Your task to perform on an android device: Clear the shopping cart on costco. Search for bose soundsport free on costco, select the first entry, add it to the cart, then select checkout. Image 0: 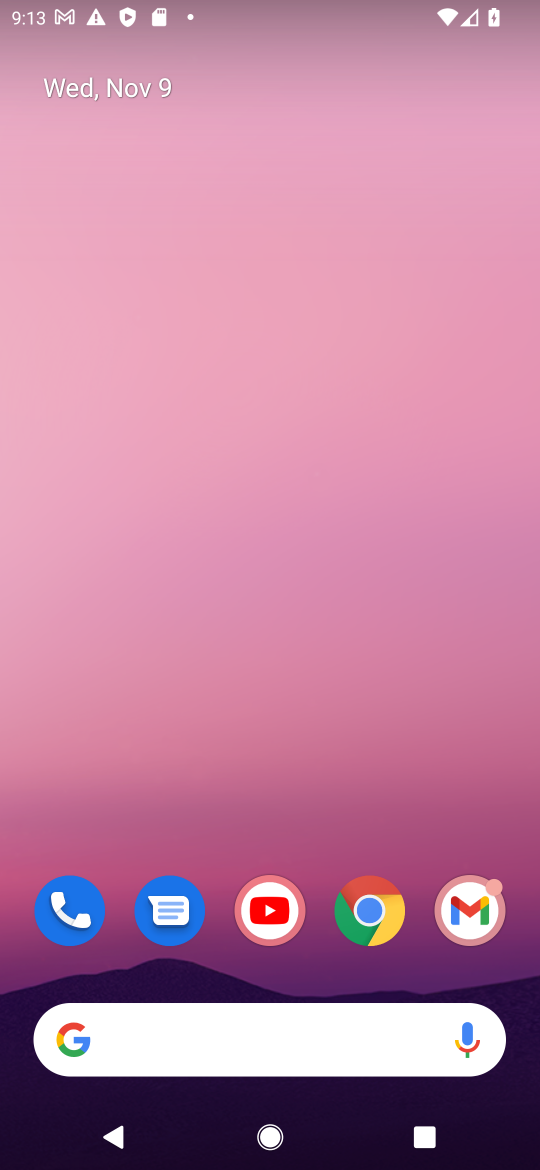
Step 0: click (371, 913)
Your task to perform on an android device: Clear the shopping cart on costco. Search for bose soundsport free on costco, select the first entry, add it to the cart, then select checkout. Image 1: 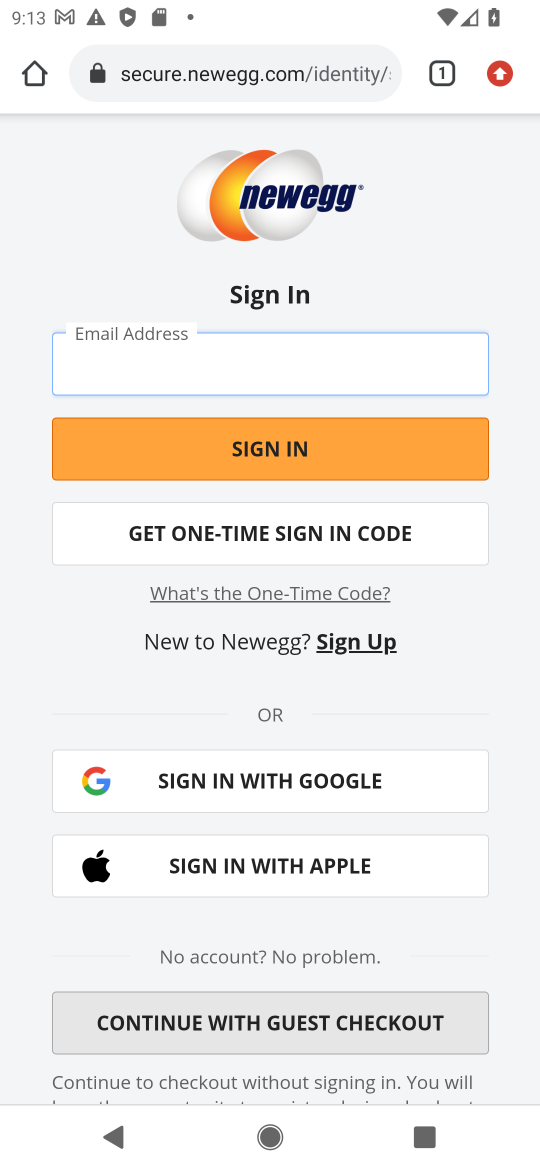
Step 1: click (254, 75)
Your task to perform on an android device: Clear the shopping cart on costco. Search for bose soundsport free on costco, select the first entry, add it to the cart, then select checkout. Image 2: 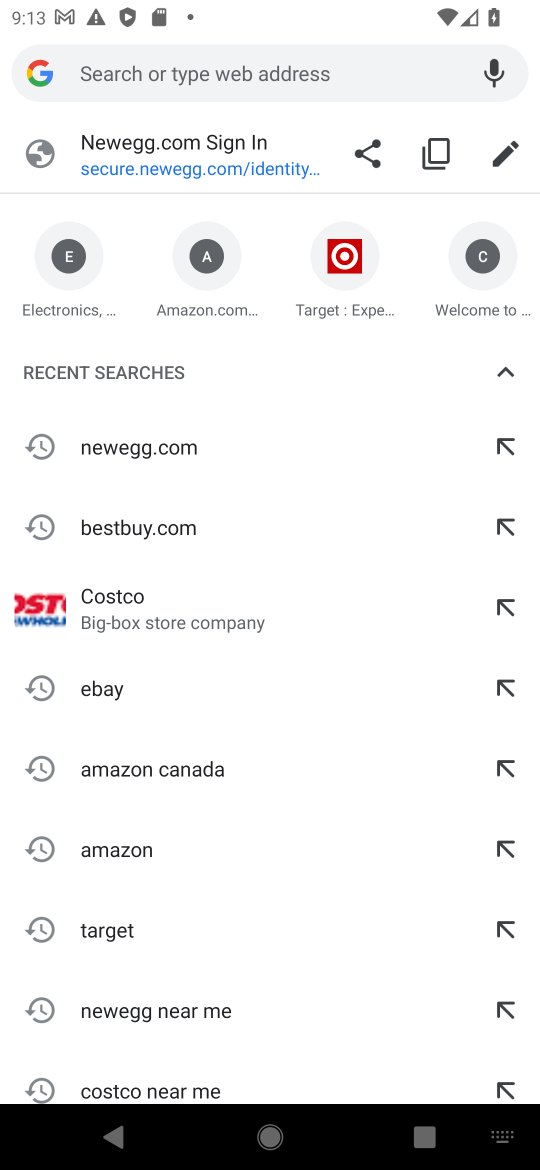
Step 2: type "costco.com"
Your task to perform on an android device: Clear the shopping cart on costco. Search for bose soundsport free on costco, select the first entry, add it to the cart, then select checkout. Image 3: 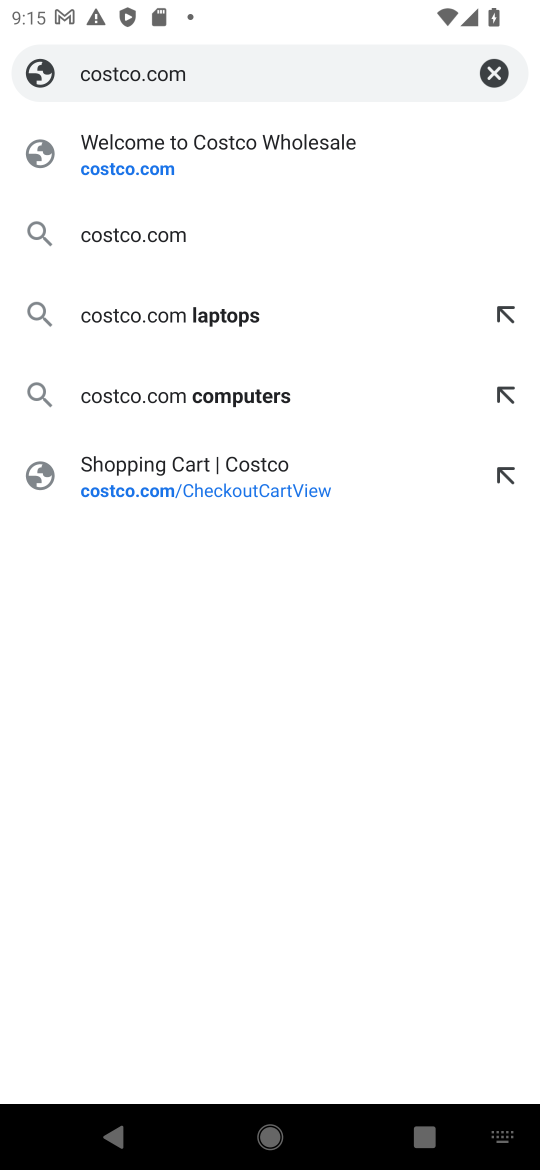
Step 3: click (126, 172)
Your task to perform on an android device: Clear the shopping cart on costco. Search for bose soundsport free on costco, select the first entry, add it to the cart, then select checkout. Image 4: 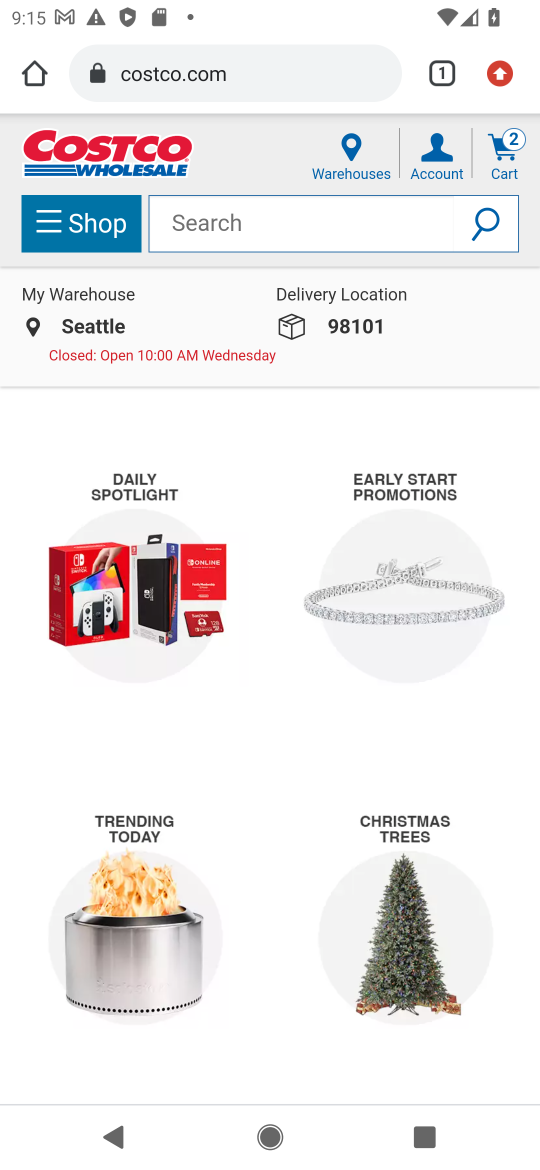
Step 4: click (502, 153)
Your task to perform on an android device: Clear the shopping cart on costco. Search for bose soundsport free on costco, select the first entry, add it to the cart, then select checkout. Image 5: 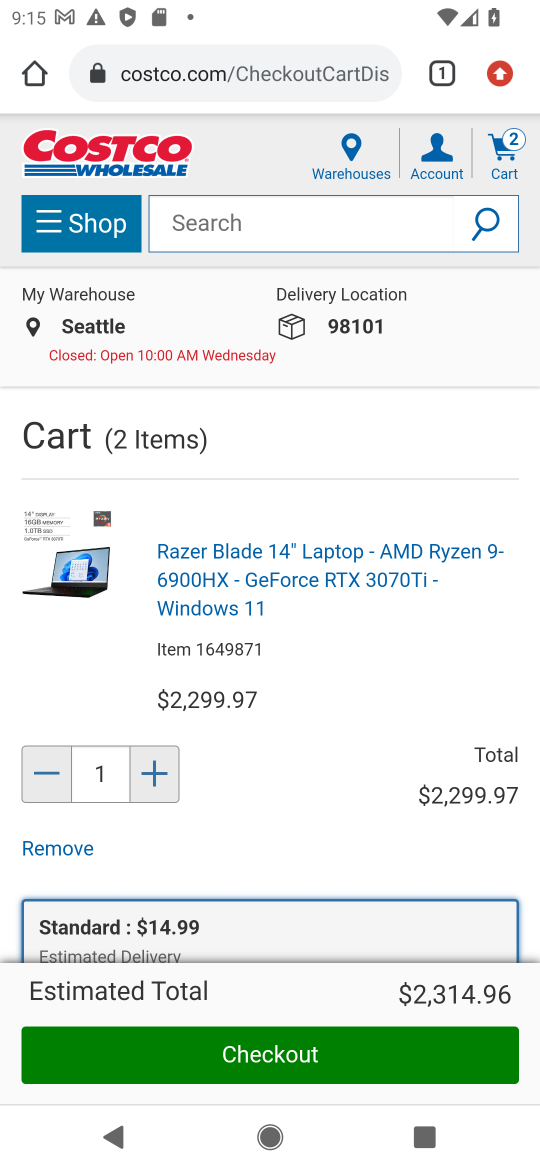
Step 5: drag from (241, 822) to (244, 346)
Your task to perform on an android device: Clear the shopping cart on costco. Search for bose soundsport free on costco, select the first entry, add it to the cart, then select checkout. Image 6: 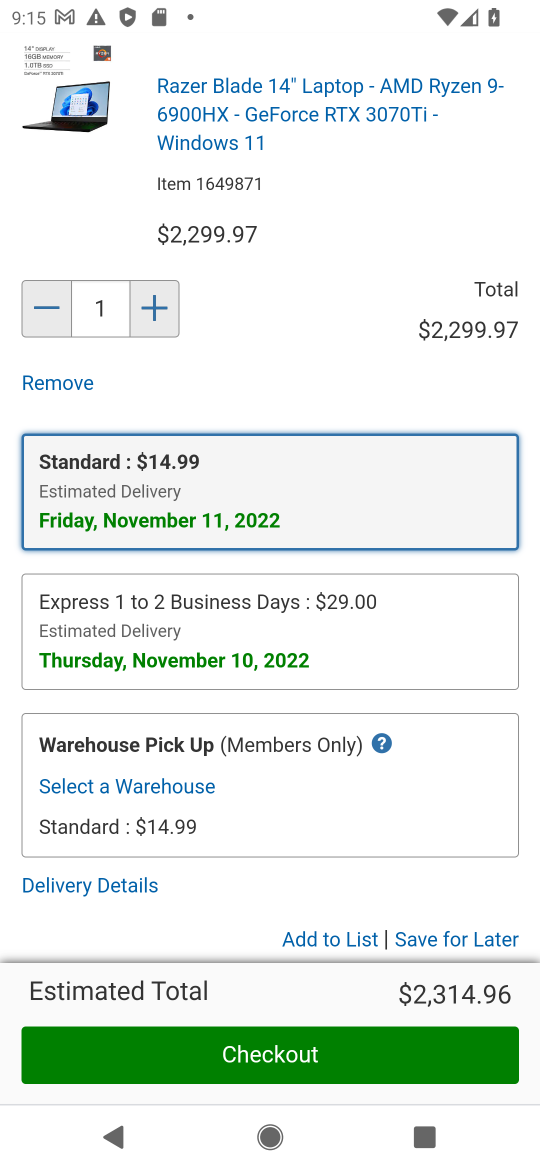
Step 6: click (457, 941)
Your task to perform on an android device: Clear the shopping cart on costco. Search for bose soundsport free on costco, select the first entry, add it to the cart, then select checkout. Image 7: 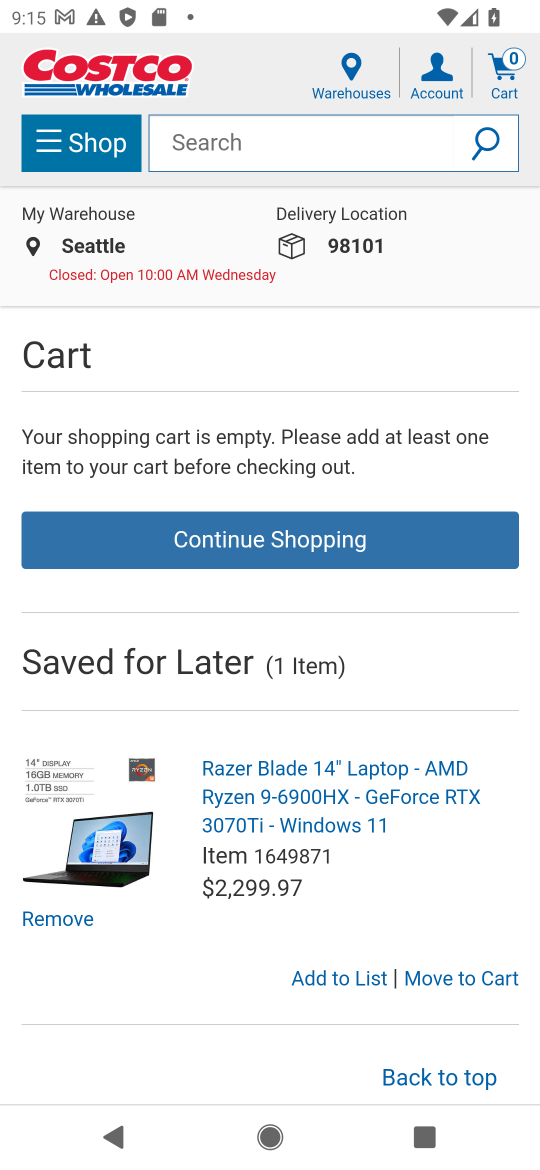
Step 7: click (287, 148)
Your task to perform on an android device: Clear the shopping cart on costco. Search for bose soundsport free on costco, select the first entry, add it to the cart, then select checkout. Image 8: 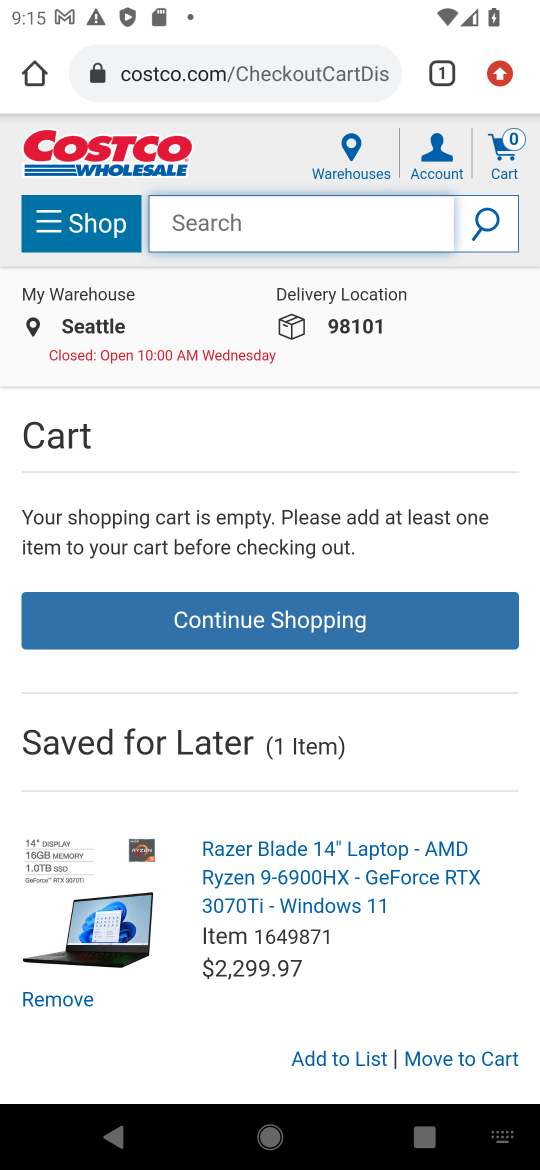
Step 8: type "bose soundsport free "
Your task to perform on an android device: Clear the shopping cart on costco. Search for bose soundsport free on costco, select the first entry, add it to the cart, then select checkout. Image 9: 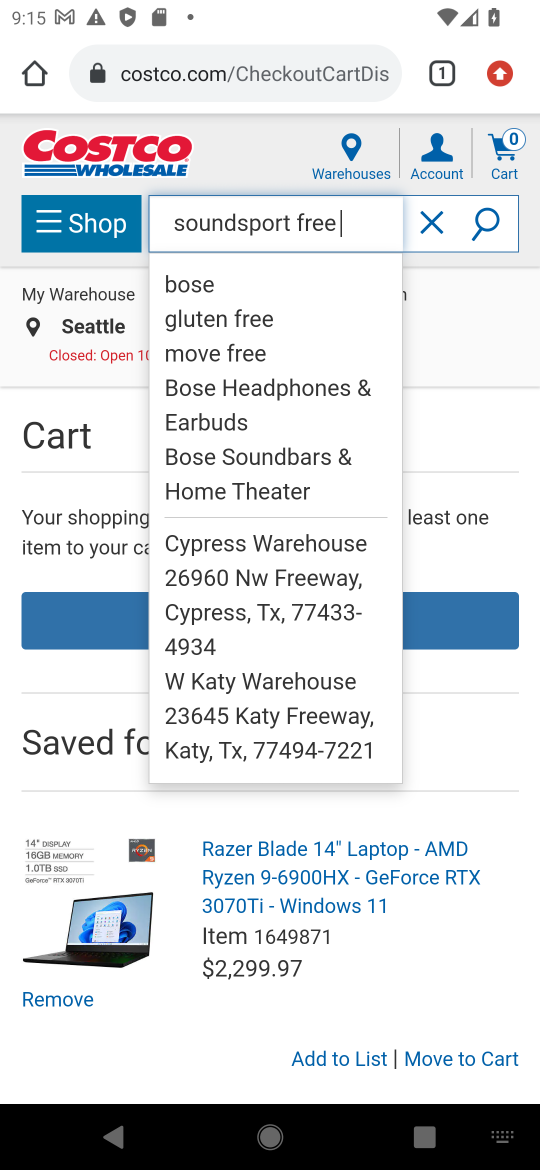
Step 9: click (475, 219)
Your task to perform on an android device: Clear the shopping cart on costco. Search for bose soundsport free on costco, select the first entry, add it to the cart, then select checkout. Image 10: 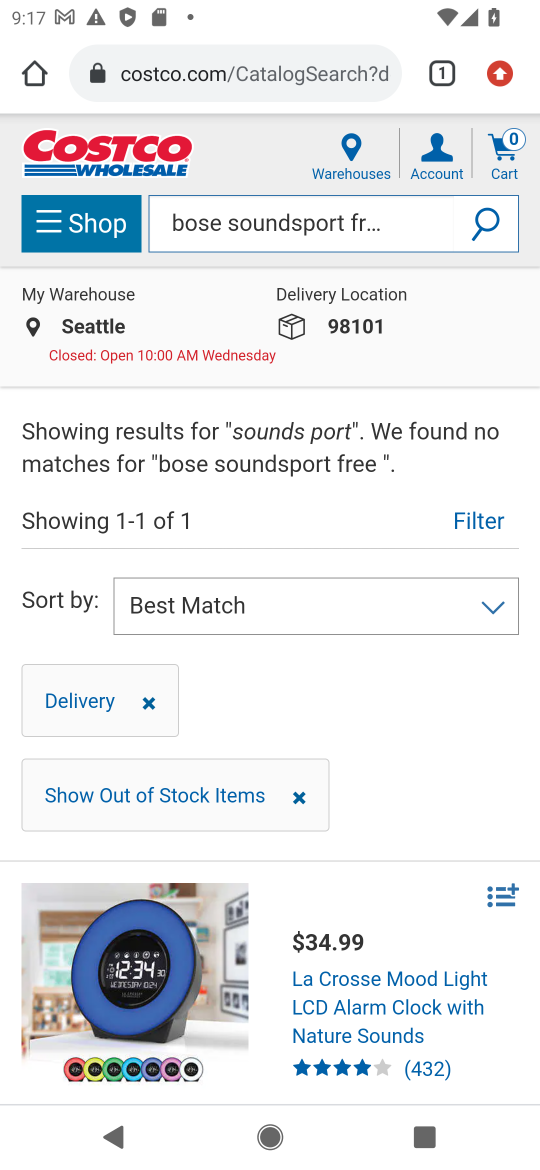
Step 10: task complete